Your task to perform on an android device: Check the weather Image 0: 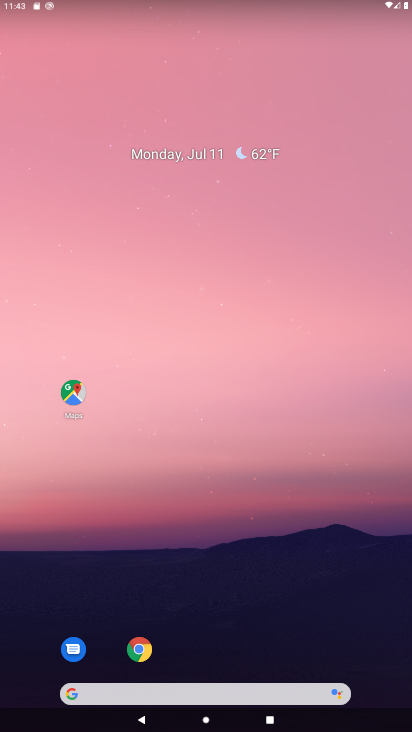
Step 0: click (229, 695)
Your task to perform on an android device: Check the weather Image 1: 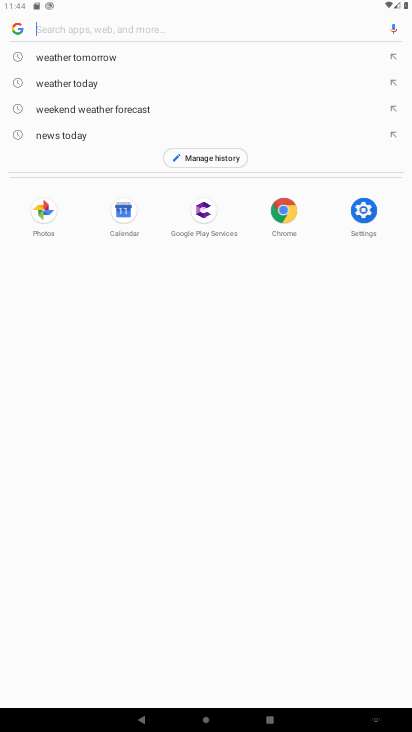
Step 1: type "weather"
Your task to perform on an android device: Check the weather Image 2: 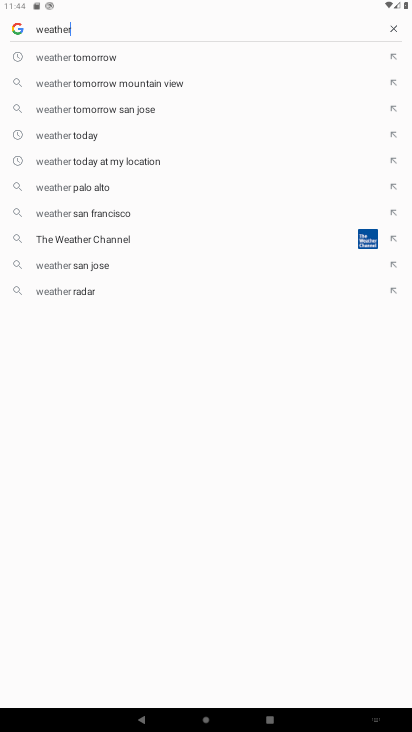
Step 2: click (69, 52)
Your task to perform on an android device: Check the weather Image 3: 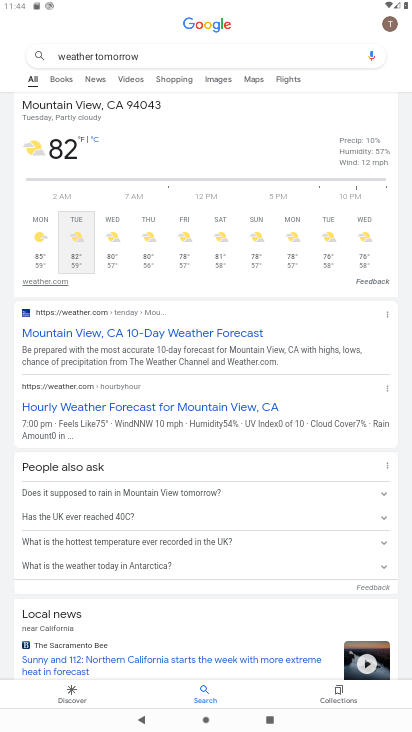
Step 3: task complete